Your task to perform on an android device: add a contact in the contacts app Image 0: 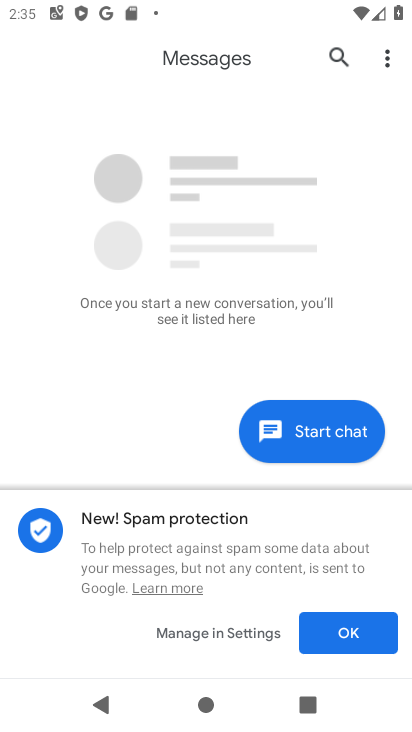
Step 0: press home button
Your task to perform on an android device: add a contact in the contacts app Image 1: 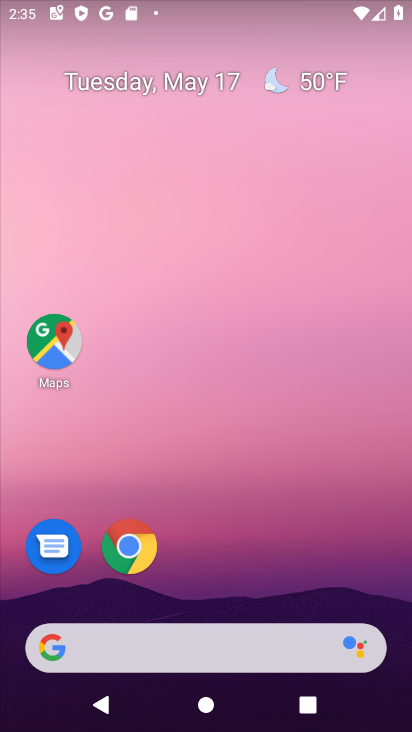
Step 1: drag from (228, 579) to (256, 1)
Your task to perform on an android device: add a contact in the contacts app Image 2: 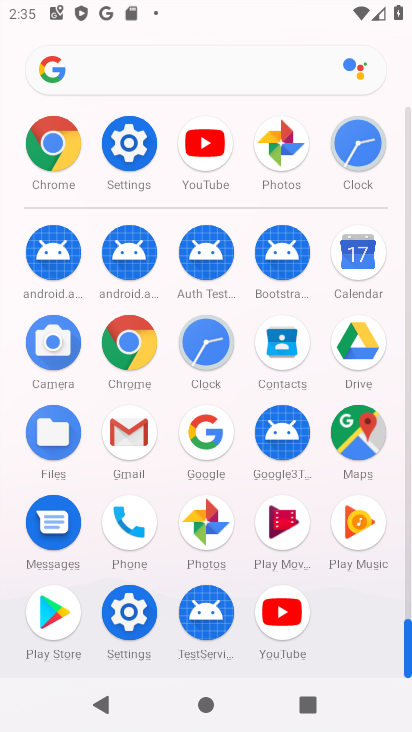
Step 2: click (288, 340)
Your task to perform on an android device: add a contact in the contacts app Image 3: 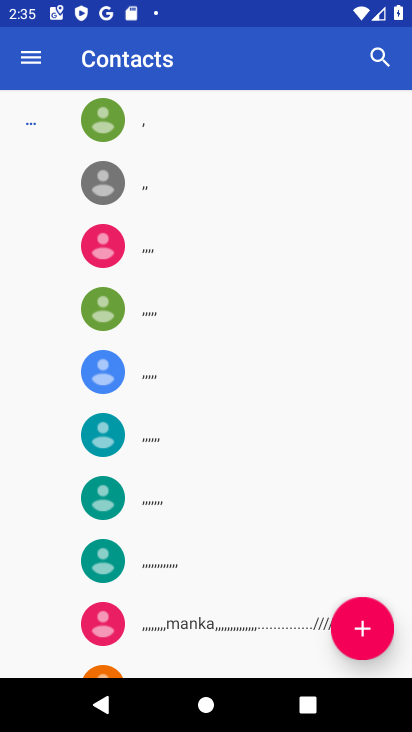
Step 3: click (366, 637)
Your task to perform on an android device: add a contact in the contacts app Image 4: 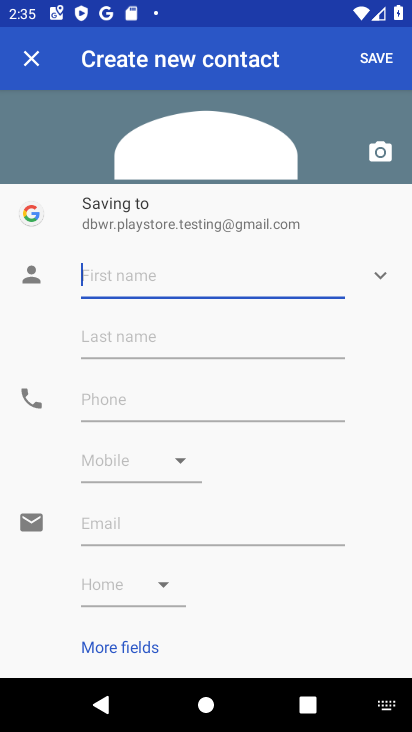
Step 4: type "frond"
Your task to perform on an android device: add a contact in the contacts app Image 5: 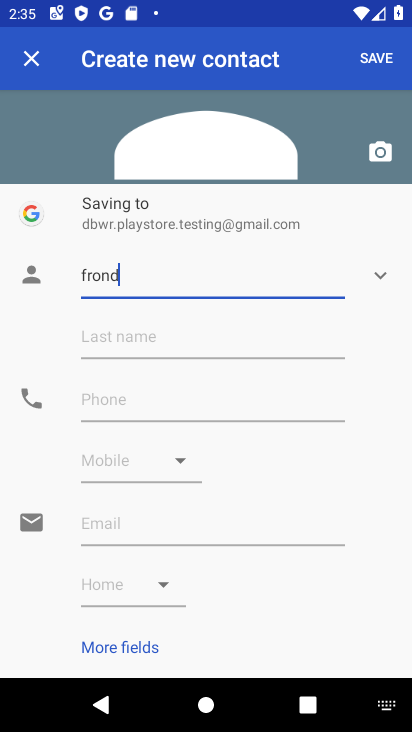
Step 5: click (354, 41)
Your task to perform on an android device: add a contact in the contacts app Image 6: 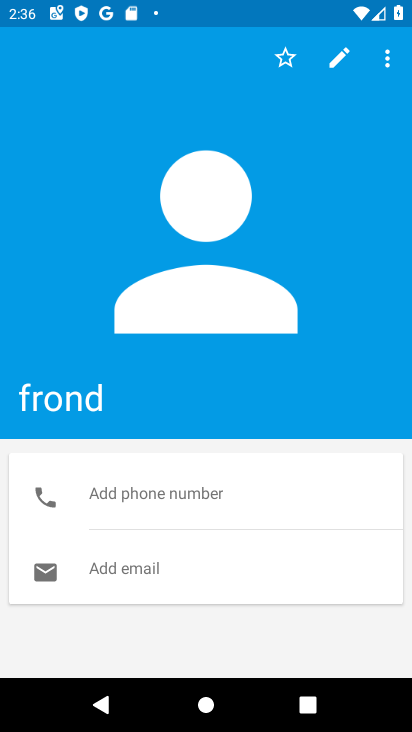
Step 6: task complete